Your task to perform on an android device: Go to network settings Image 0: 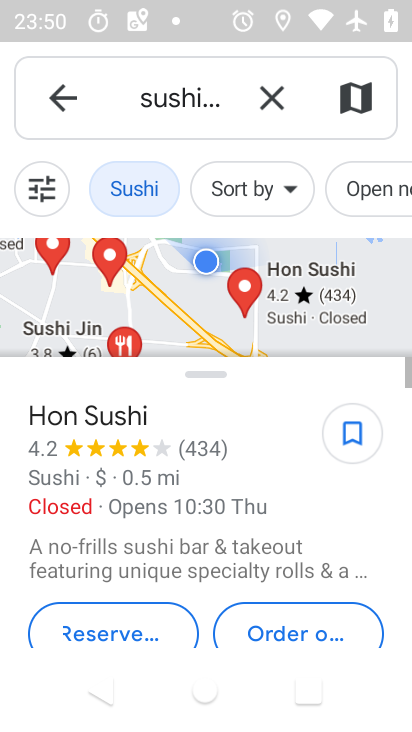
Step 0: press home button
Your task to perform on an android device: Go to network settings Image 1: 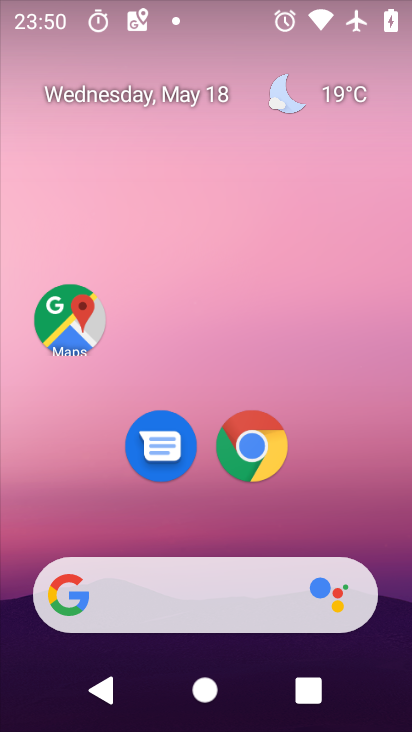
Step 1: drag from (148, 596) to (340, 87)
Your task to perform on an android device: Go to network settings Image 2: 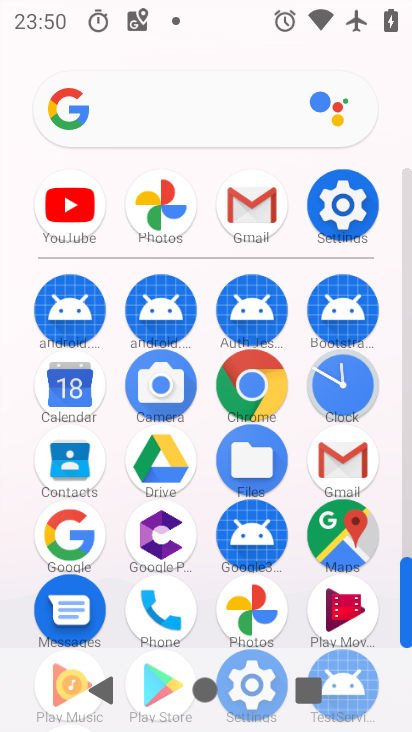
Step 2: click (329, 197)
Your task to perform on an android device: Go to network settings Image 3: 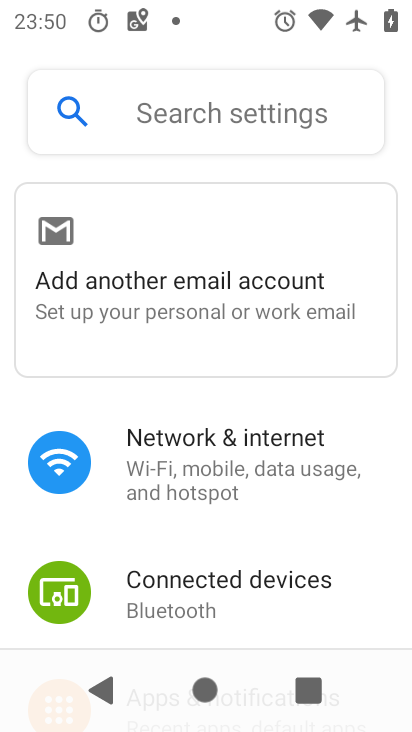
Step 3: click (243, 460)
Your task to perform on an android device: Go to network settings Image 4: 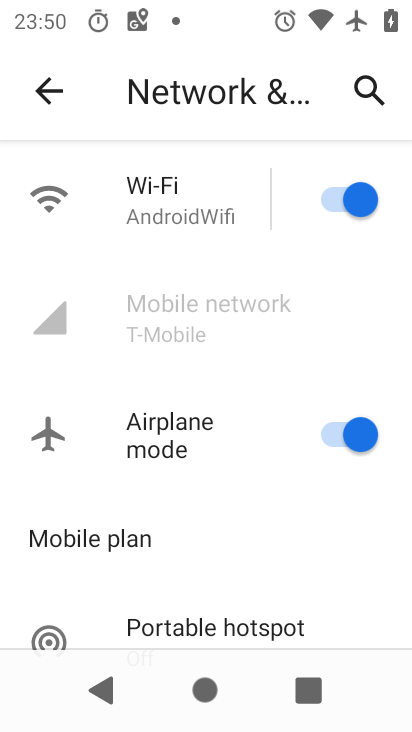
Step 4: task complete